Your task to perform on an android device: refresh tabs in the chrome app Image 0: 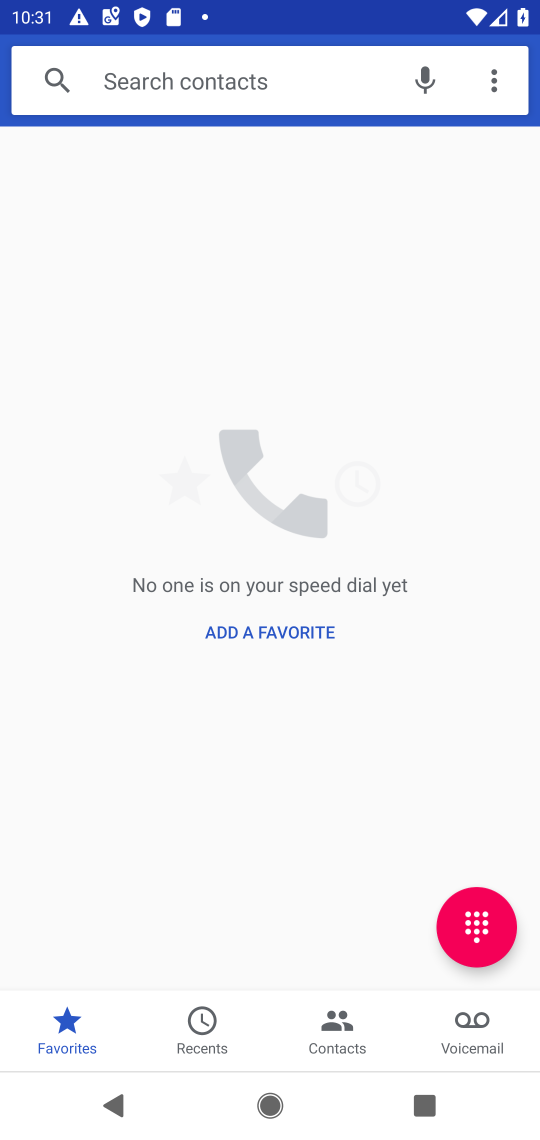
Step 0: press home button
Your task to perform on an android device: refresh tabs in the chrome app Image 1: 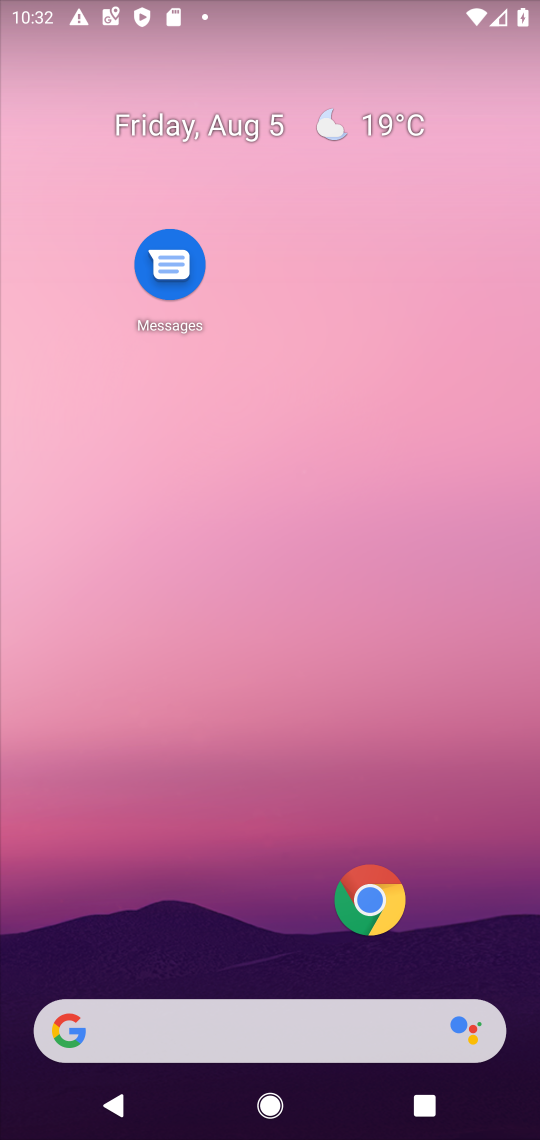
Step 1: drag from (205, 956) to (279, 310)
Your task to perform on an android device: refresh tabs in the chrome app Image 2: 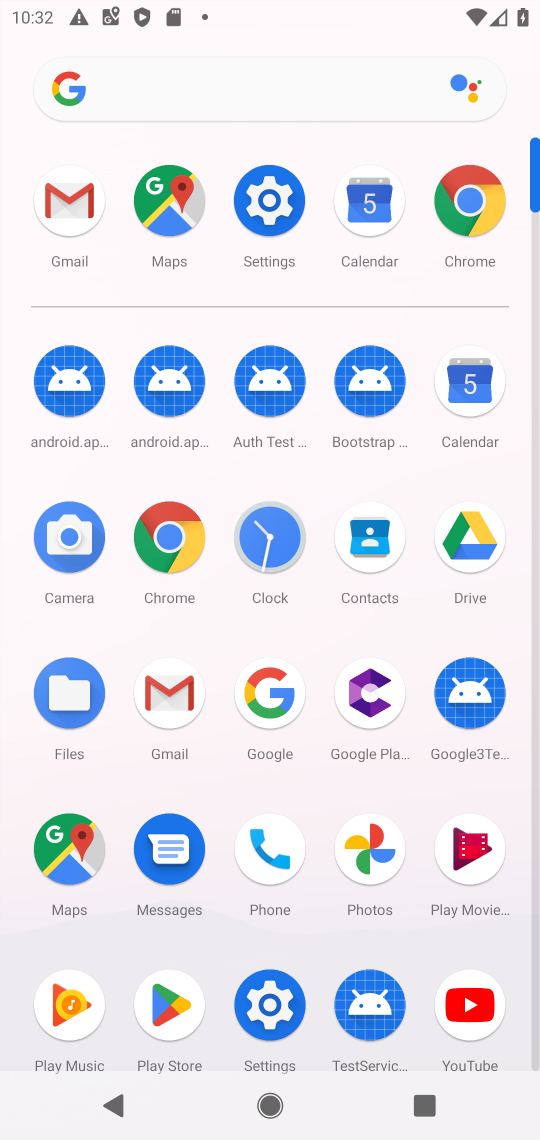
Step 2: click (480, 211)
Your task to perform on an android device: refresh tabs in the chrome app Image 3: 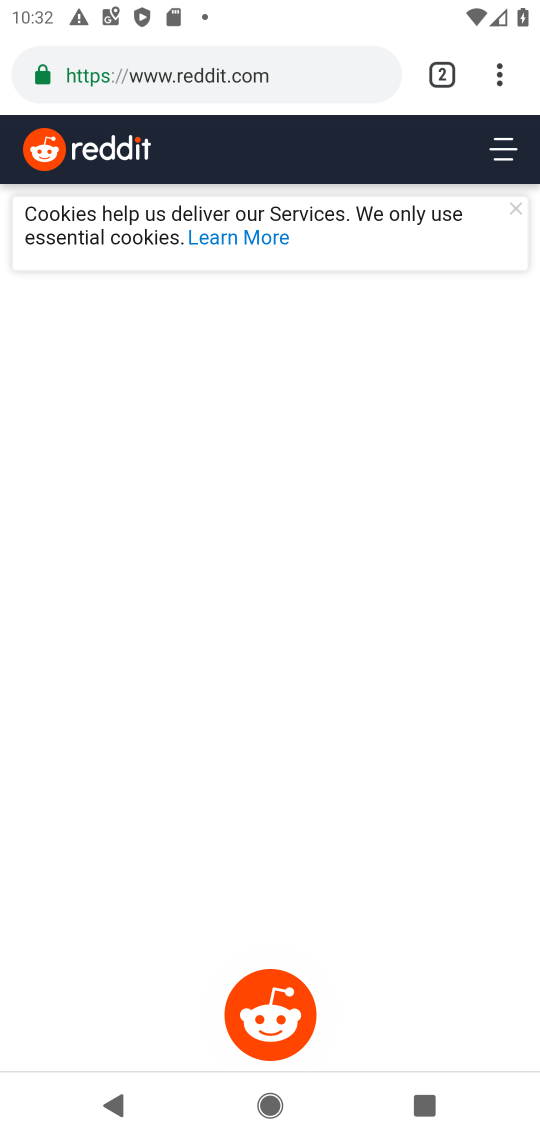
Step 3: click (504, 82)
Your task to perform on an android device: refresh tabs in the chrome app Image 4: 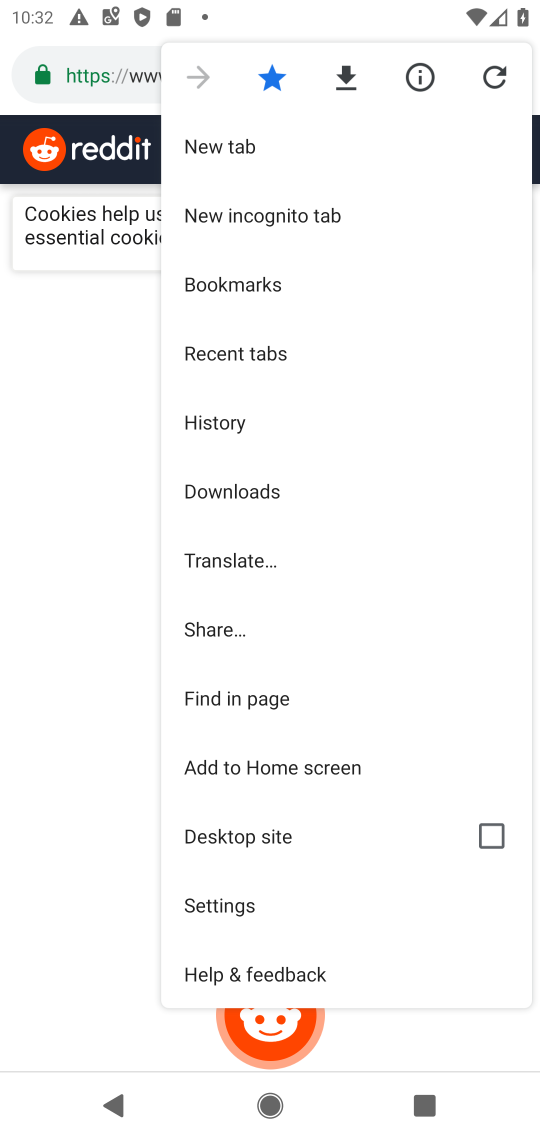
Step 4: click (504, 81)
Your task to perform on an android device: refresh tabs in the chrome app Image 5: 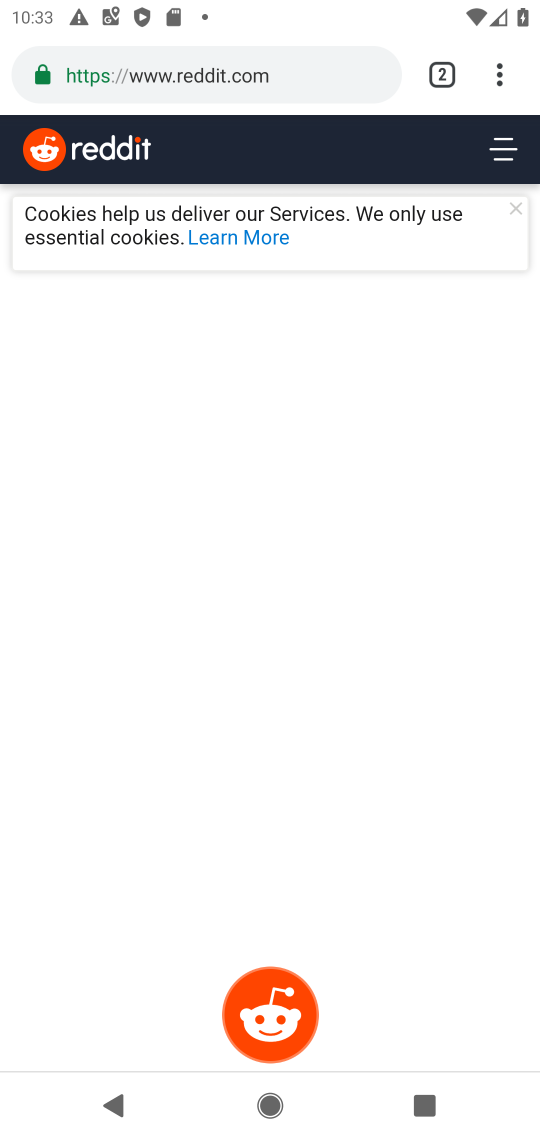
Step 5: click (490, 73)
Your task to perform on an android device: refresh tabs in the chrome app Image 6: 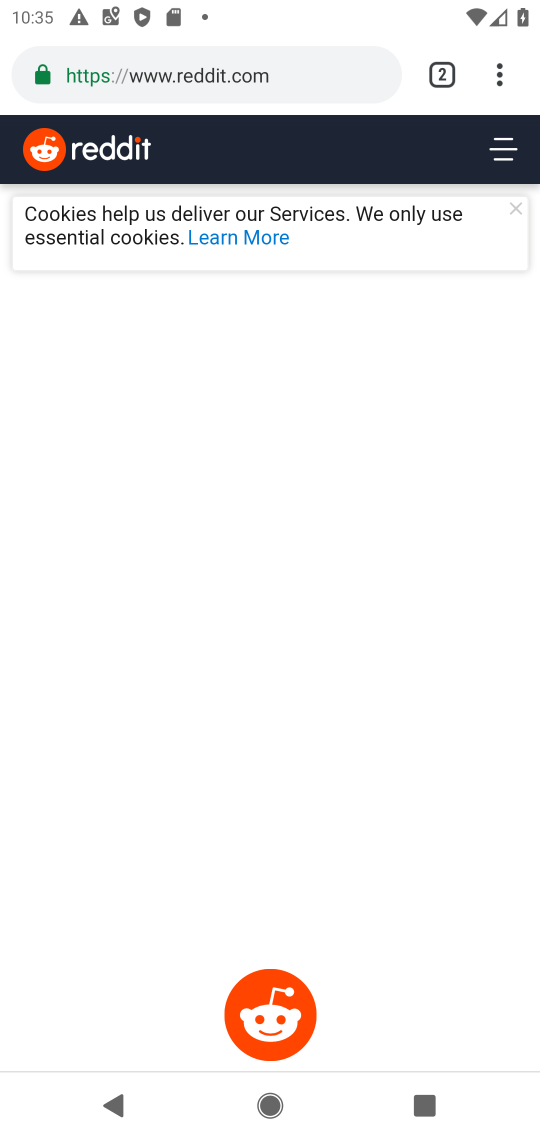
Step 6: task complete